Your task to perform on an android device: stop showing notifications on the lock screen Image 0: 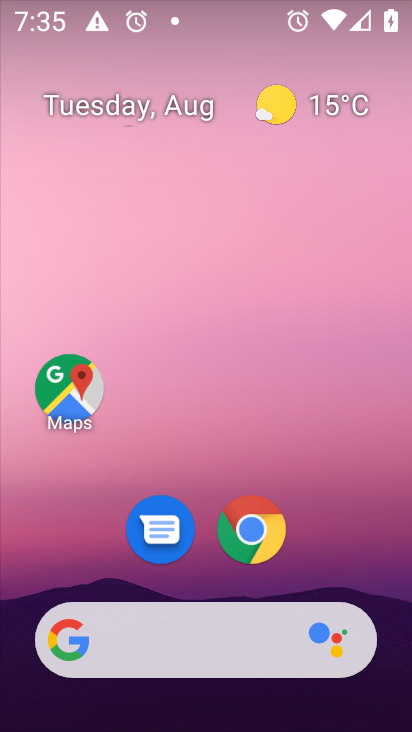
Step 0: press home button
Your task to perform on an android device: stop showing notifications on the lock screen Image 1: 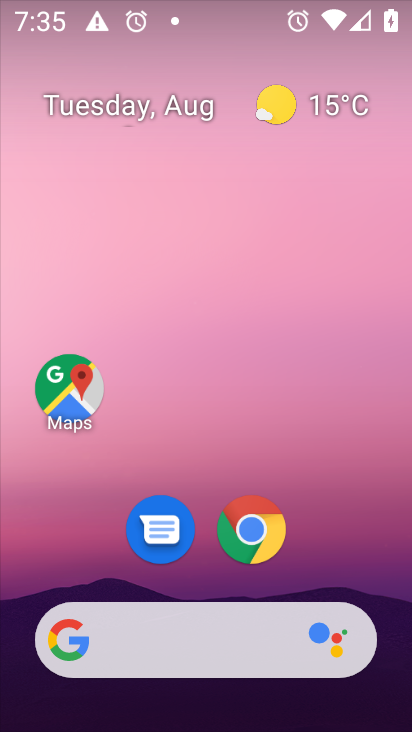
Step 1: drag from (214, 582) to (229, 117)
Your task to perform on an android device: stop showing notifications on the lock screen Image 2: 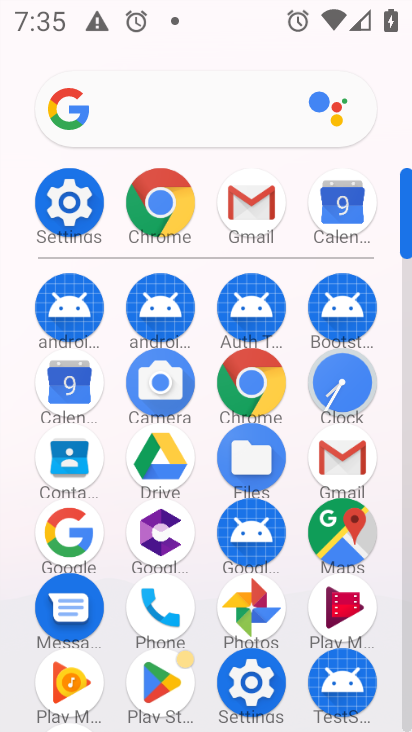
Step 2: click (62, 203)
Your task to perform on an android device: stop showing notifications on the lock screen Image 3: 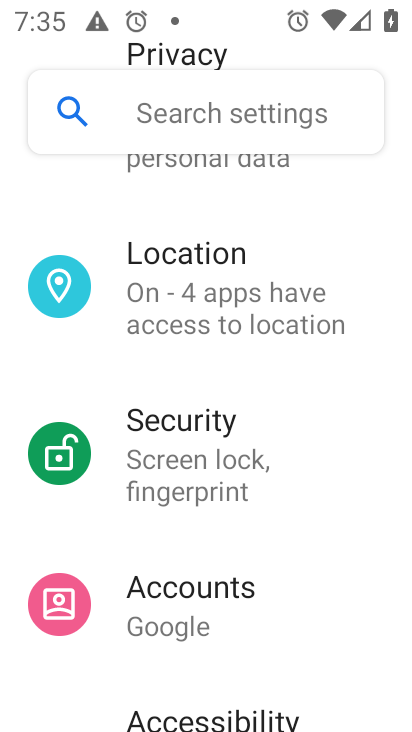
Step 3: drag from (300, 215) to (243, 721)
Your task to perform on an android device: stop showing notifications on the lock screen Image 4: 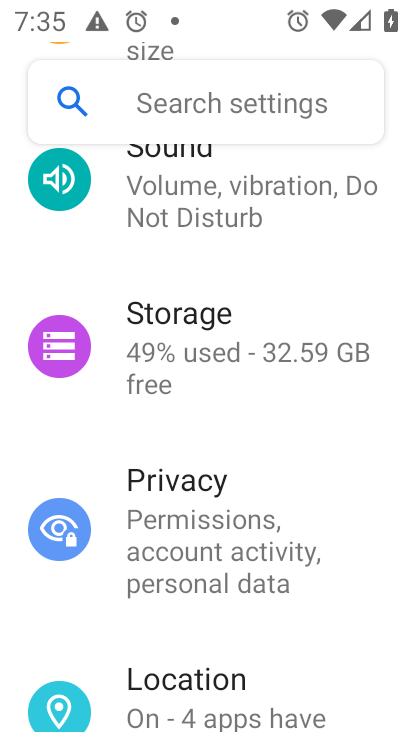
Step 4: drag from (256, 300) to (213, 726)
Your task to perform on an android device: stop showing notifications on the lock screen Image 5: 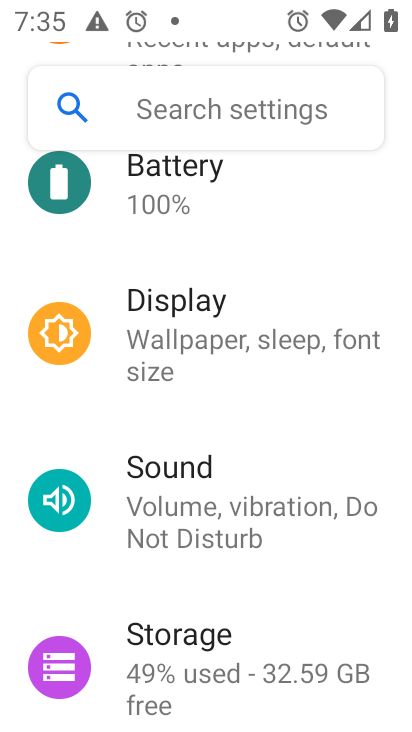
Step 5: drag from (256, 229) to (209, 699)
Your task to perform on an android device: stop showing notifications on the lock screen Image 6: 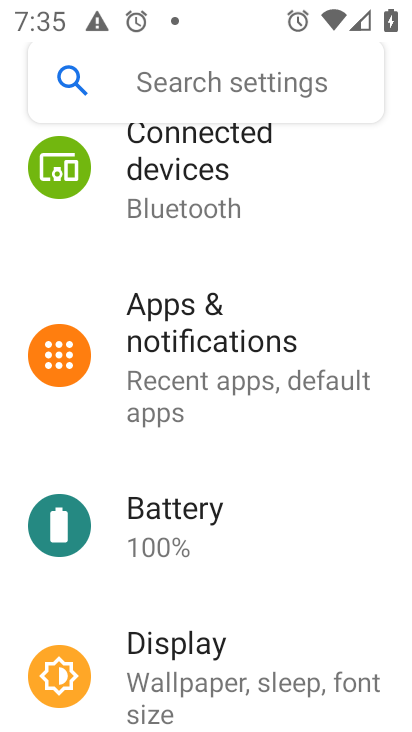
Step 6: click (209, 381)
Your task to perform on an android device: stop showing notifications on the lock screen Image 7: 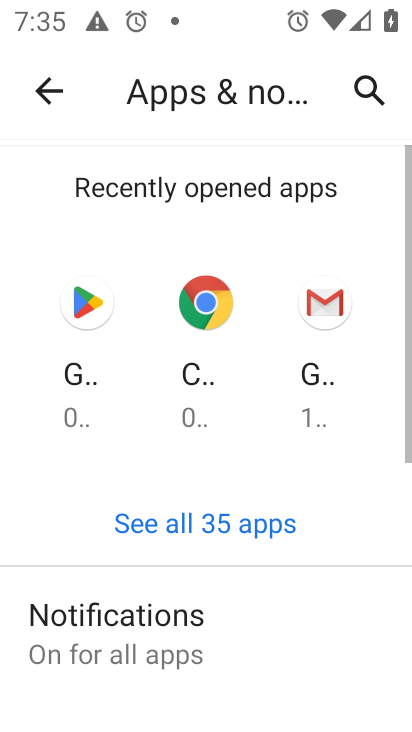
Step 7: click (126, 649)
Your task to perform on an android device: stop showing notifications on the lock screen Image 8: 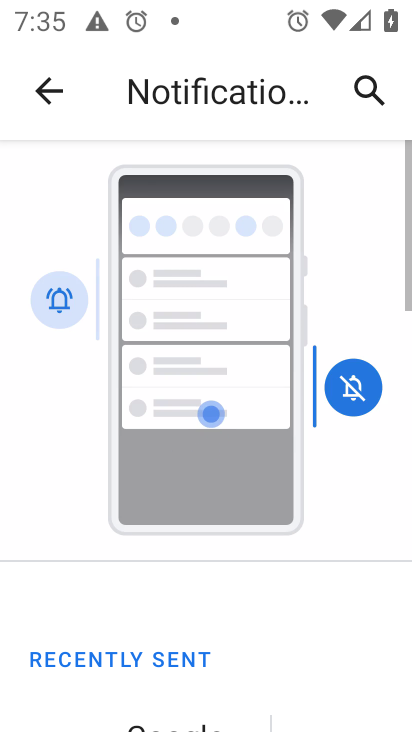
Step 8: drag from (311, 639) to (301, 21)
Your task to perform on an android device: stop showing notifications on the lock screen Image 9: 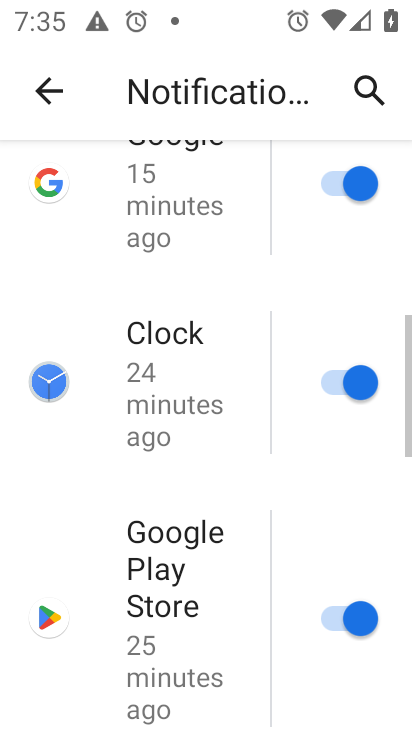
Step 9: drag from (294, 670) to (335, 12)
Your task to perform on an android device: stop showing notifications on the lock screen Image 10: 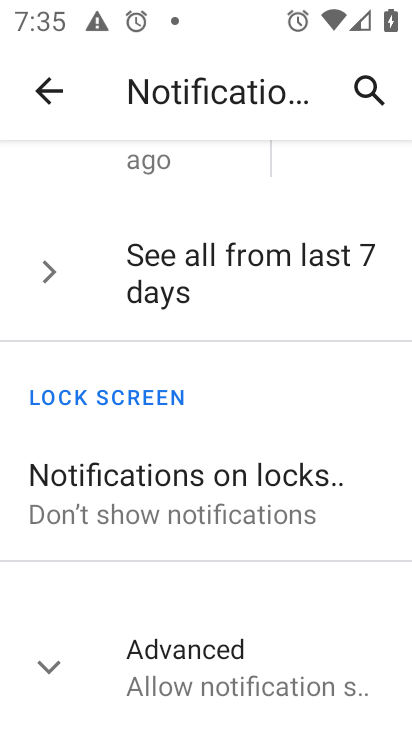
Step 10: click (203, 500)
Your task to perform on an android device: stop showing notifications on the lock screen Image 11: 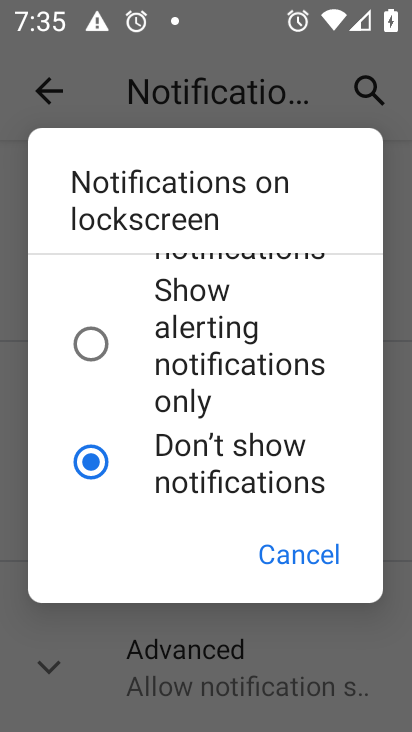
Step 11: task complete